Your task to perform on an android device: refresh tabs in the chrome app Image 0: 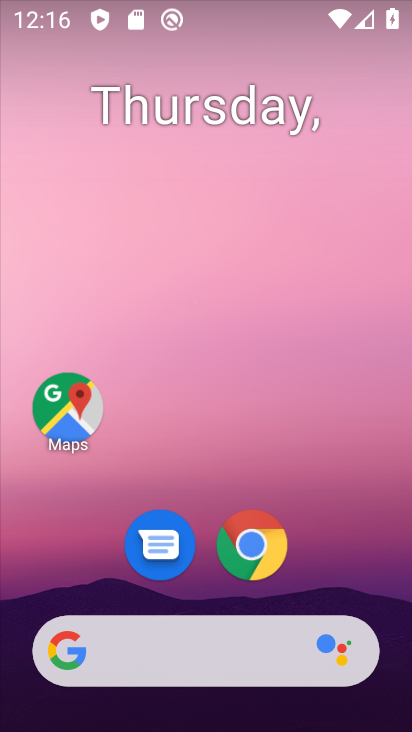
Step 0: drag from (198, 586) to (208, 278)
Your task to perform on an android device: refresh tabs in the chrome app Image 1: 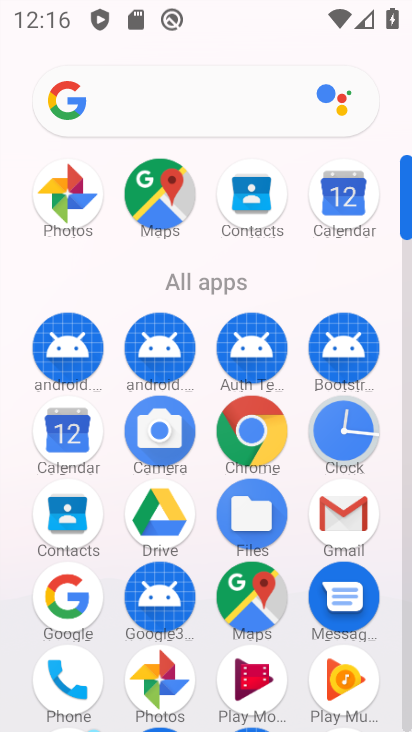
Step 1: click (255, 447)
Your task to perform on an android device: refresh tabs in the chrome app Image 2: 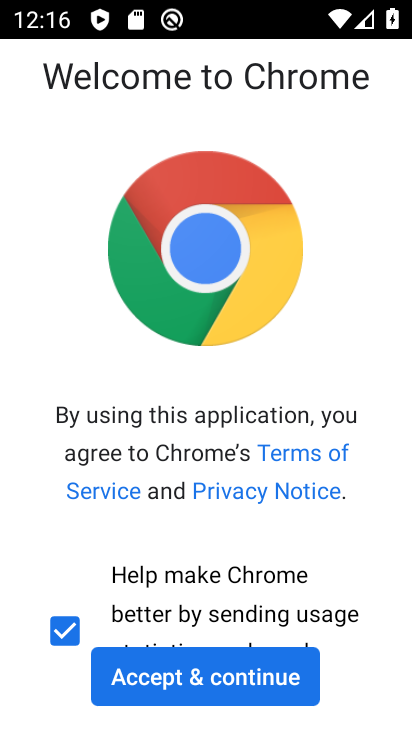
Step 2: click (163, 670)
Your task to perform on an android device: refresh tabs in the chrome app Image 3: 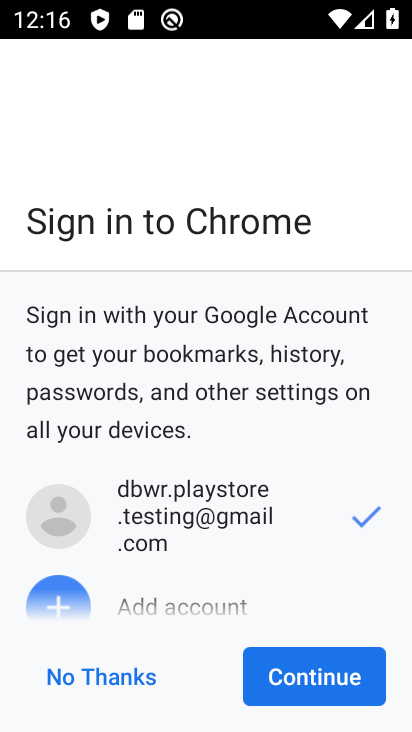
Step 3: click (267, 676)
Your task to perform on an android device: refresh tabs in the chrome app Image 4: 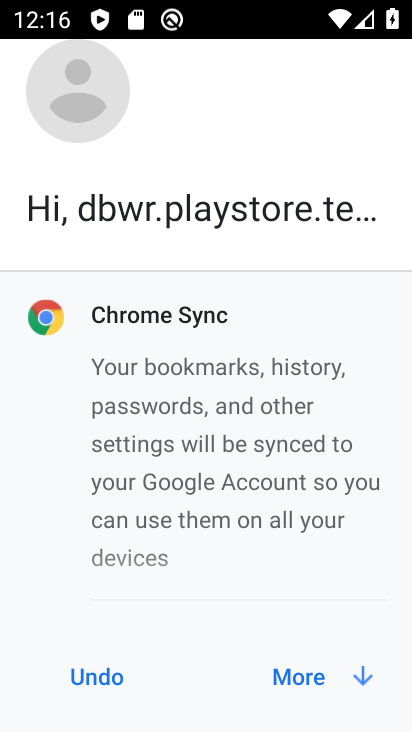
Step 4: click (276, 683)
Your task to perform on an android device: refresh tabs in the chrome app Image 5: 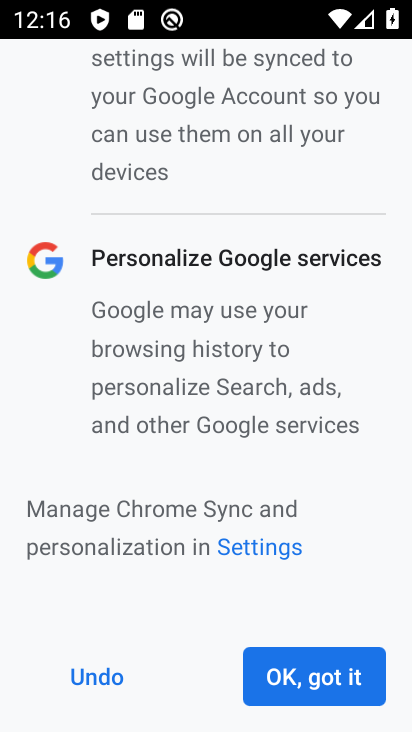
Step 5: click (275, 684)
Your task to perform on an android device: refresh tabs in the chrome app Image 6: 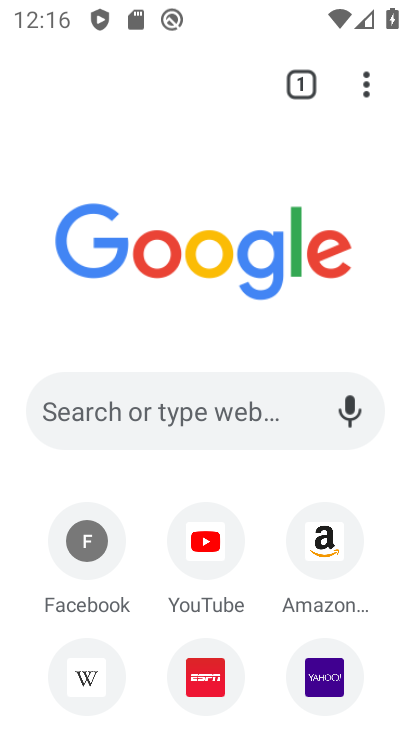
Step 6: click (356, 86)
Your task to perform on an android device: refresh tabs in the chrome app Image 7: 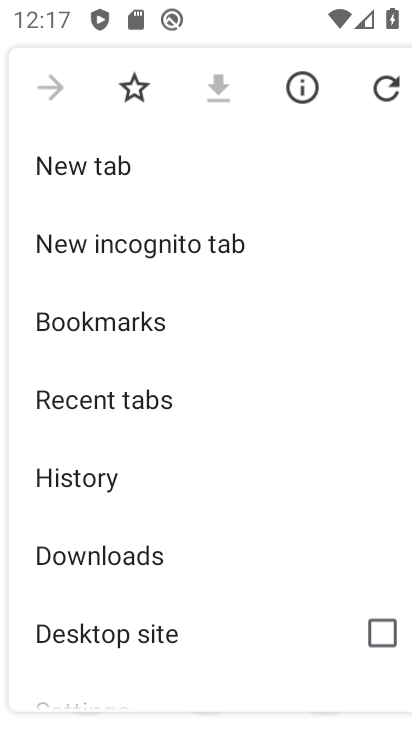
Step 7: click (380, 89)
Your task to perform on an android device: refresh tabs in the chrome app Image 8: 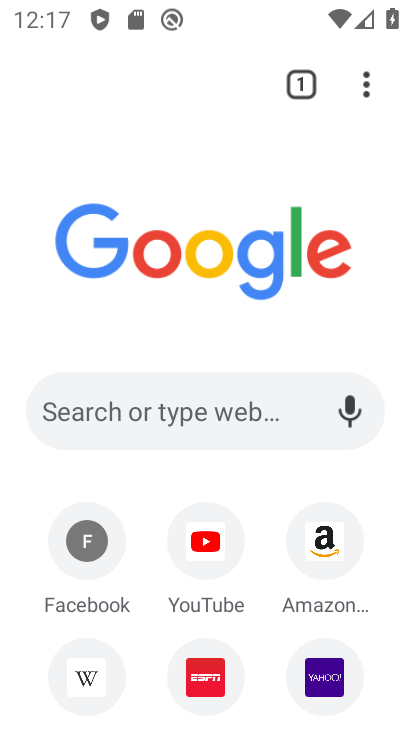
Step 8: task complete